Your task to perform on an android device: Open Chrome and go to the settings page Image 0: 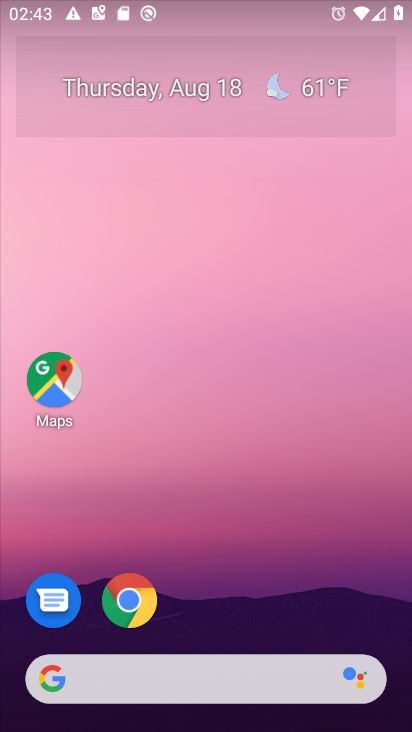
Step 0: press home button
Your task to perform on an android device: Open Chrome and go to the settings page Image 1: 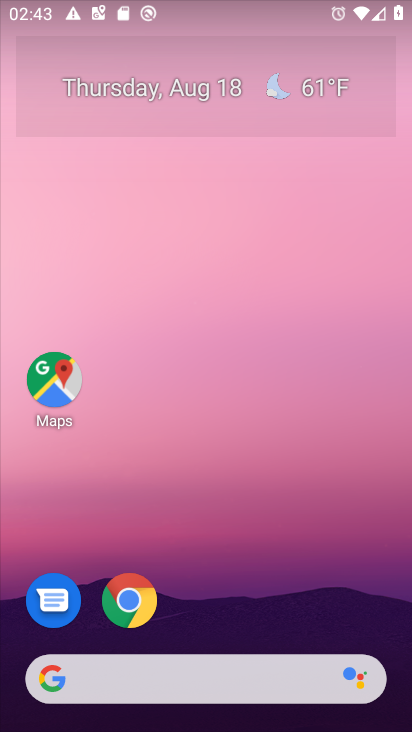
Step 1: click (119, 585)
Your task to perform on an android device: Open Chrome and go to the settings page Image 2: 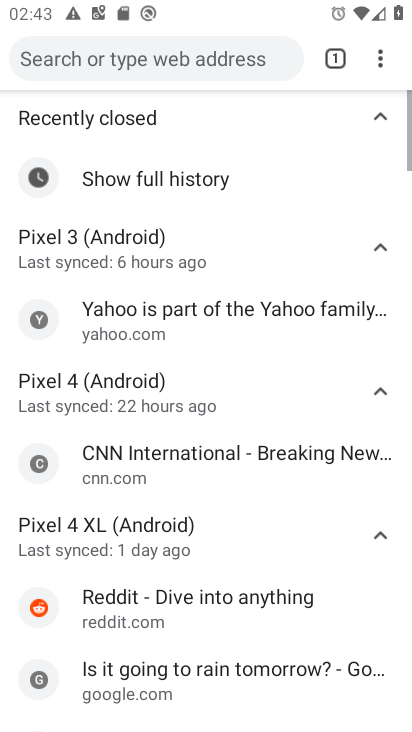
Step 2: task complete